Your task to perform on an android device: check android version Image 0: 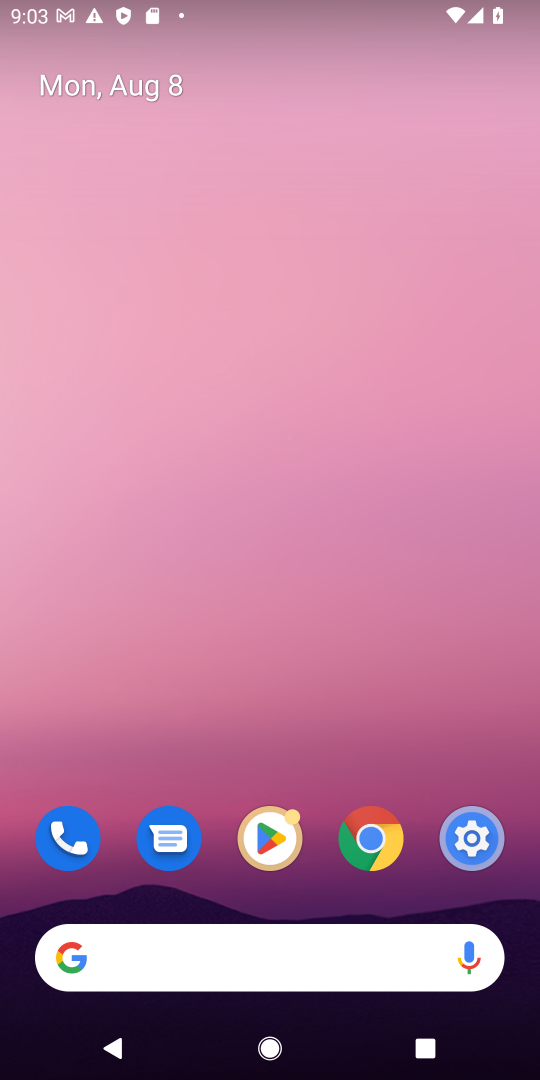
Step 0: press home button
Your task to perform on an android device: check android version Image 1: 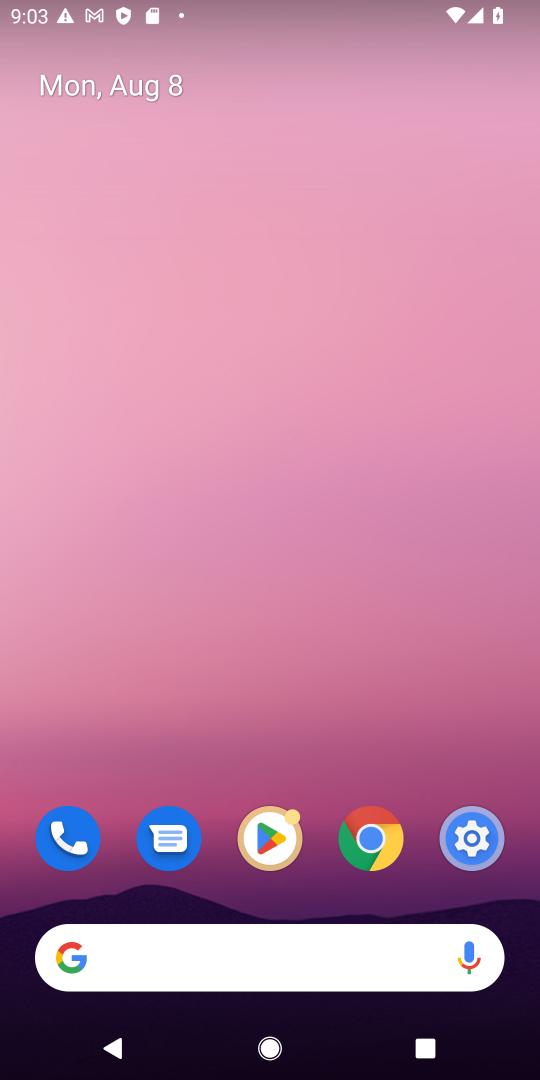
Step 1: click (488, 842)
Your task to perform on an android device: check android version Image 2: 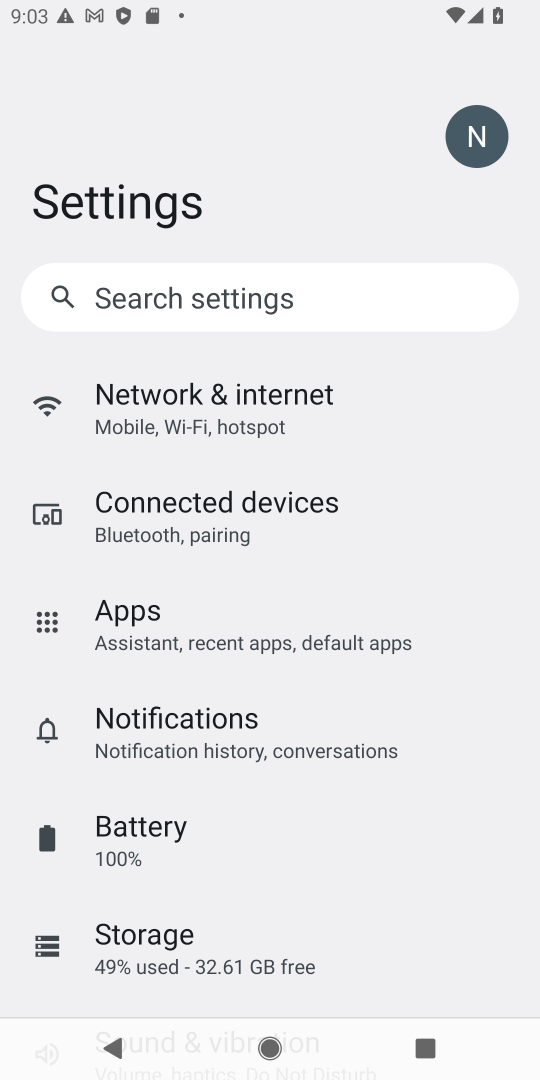
Step 2: drag from (423, 942) to (357, 303)
Your task to perform on an android device: check android version Image 3: 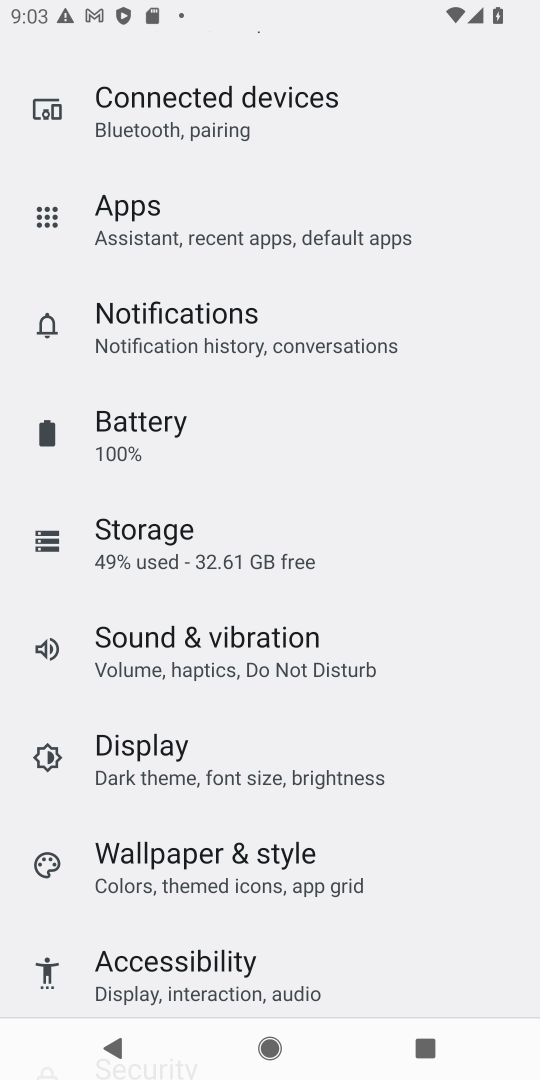
Step 3: drag from (381, 972) to (360, 281)
Your task to perform on an android device: check android version Image 4: 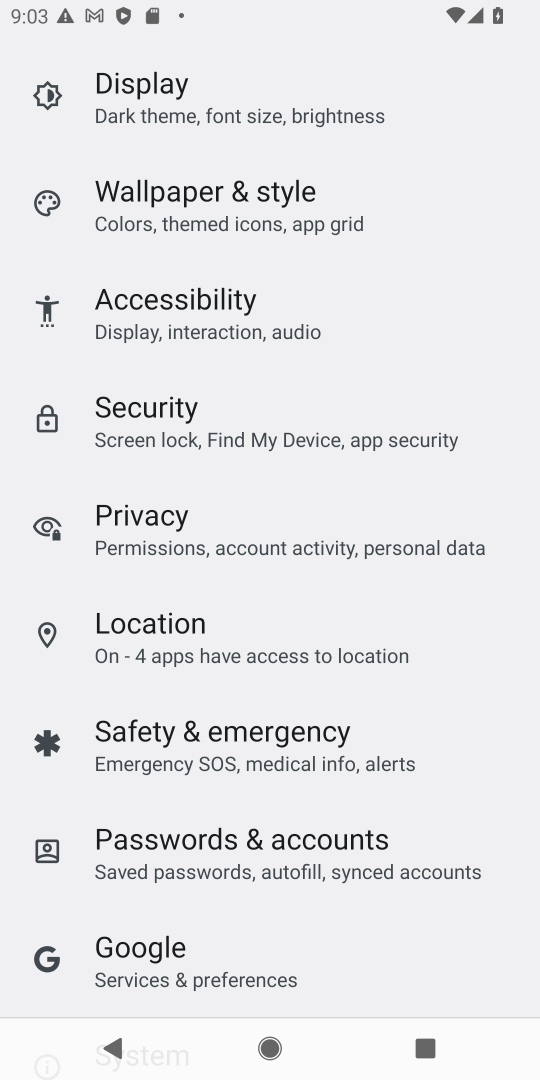
Step 4: drag from (265, 912) to (272, 390)
Your task to perform on an android device: check android version Image 5: 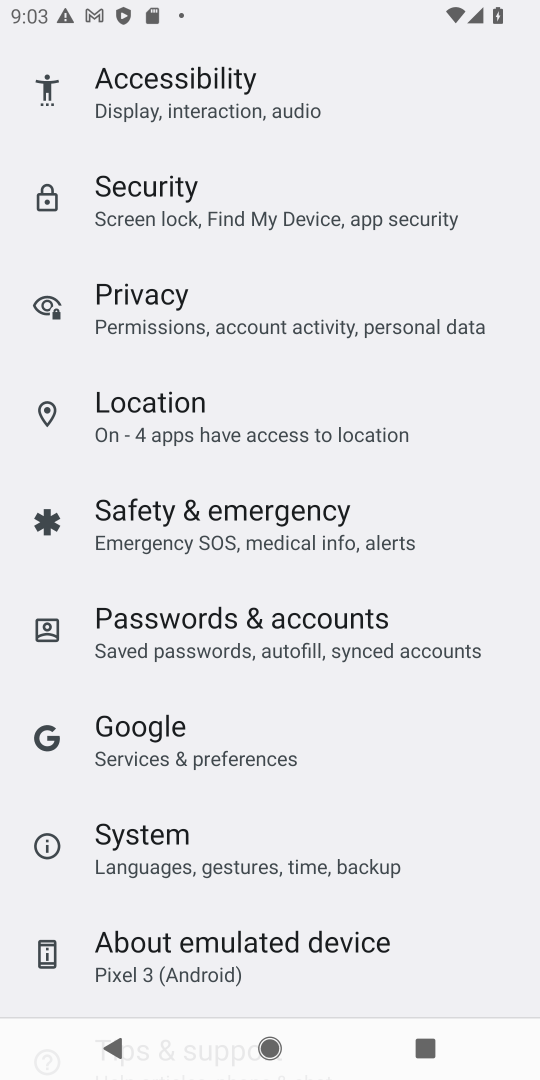
Step 5: click (195, 955)
Your task to perform on an android device: check android version Image 6: 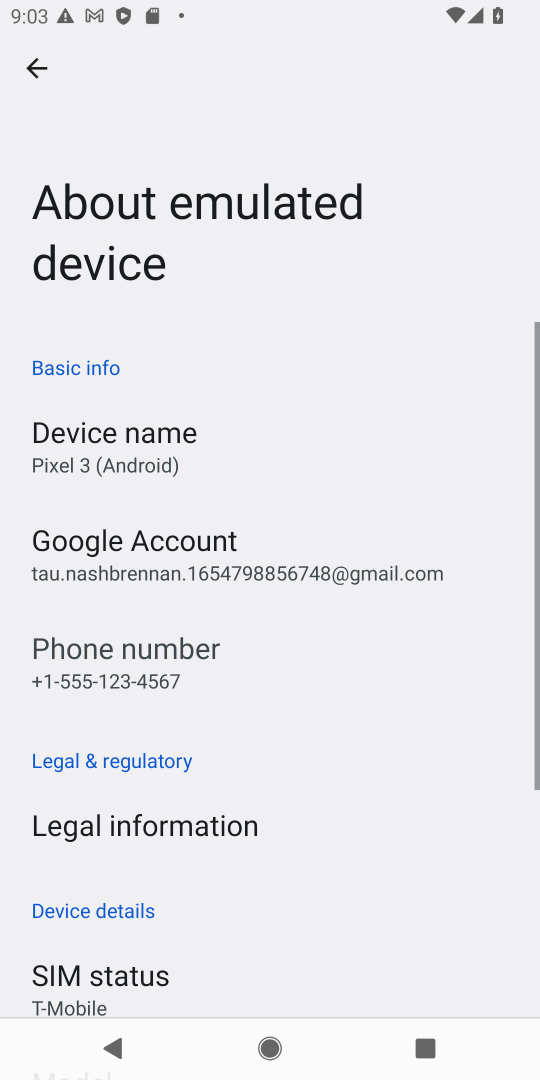
Step 6: drag from (344, 939) to (344, 13)
Your task to perform on an android device: check android version Image 7: 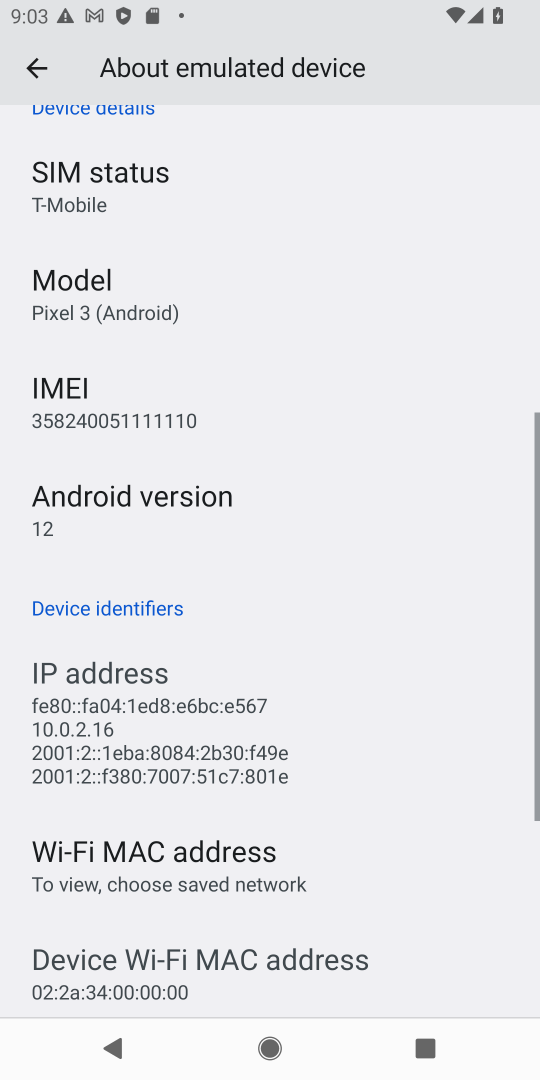
Step 7: click (132, 506)
Your task to perform on an android device: check android version Image 8: 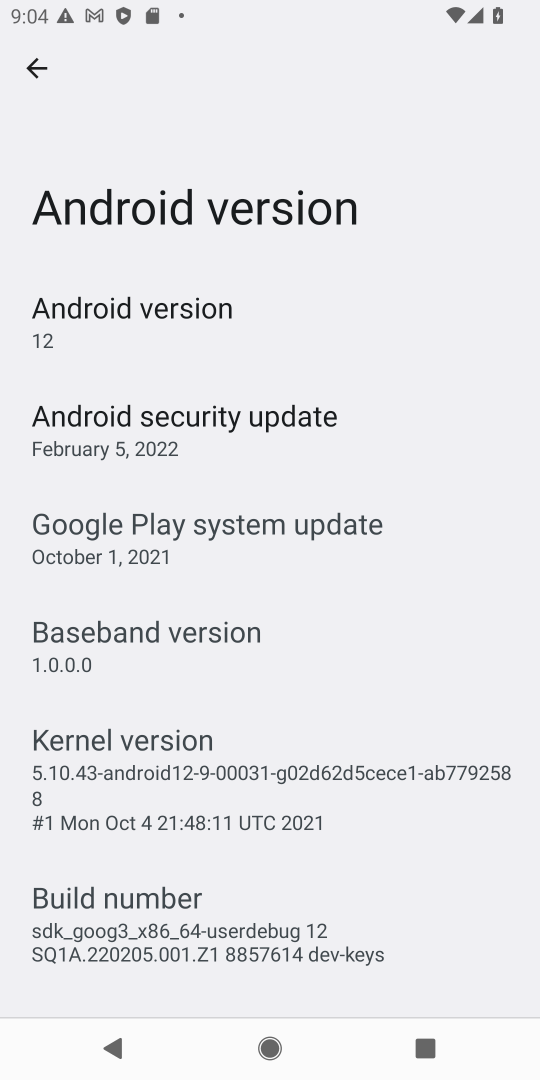
Step 8: task complete